Your task to perform on an android device: Show me popular videos on Youtube Image 0: 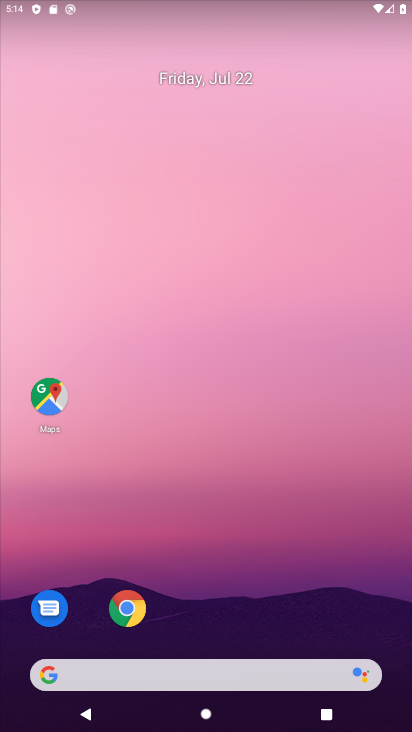
Step 0: drag from (204, 635) to (240, 193)
Your task to perform on an android device: Show me popular videos on Youtube Image 1: 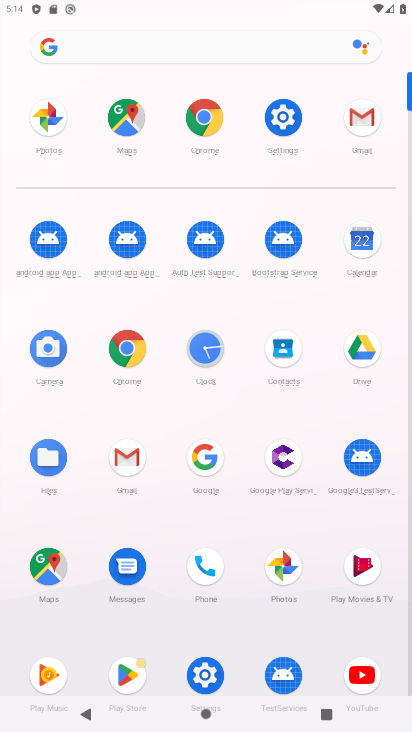
Step 1: click (363, 683)
Your task to perform on an android device: Show me popular videos on Youtube Image 2: 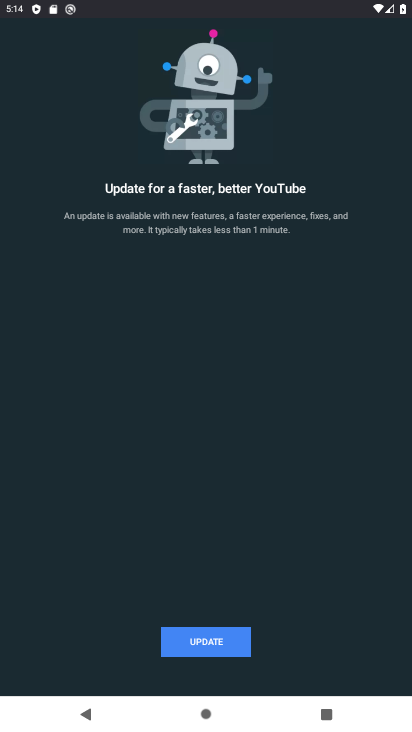
Step 2: click (211, 661)
Your task to perform on an android device: Show me popular videos on Youtube Image 3: 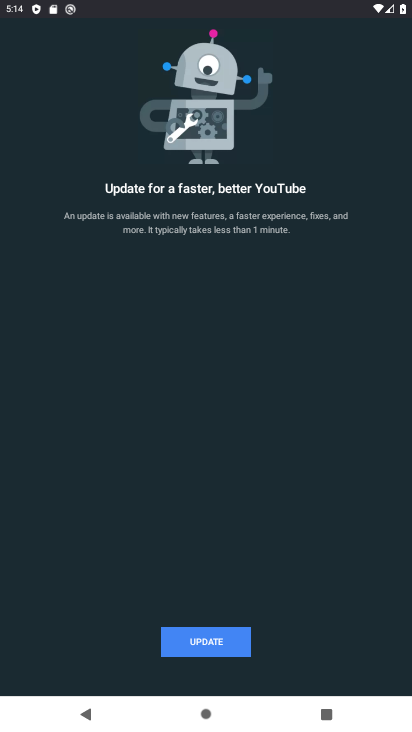
Step 3: click (208, 645)
Your task to perform on an android device: Show me popular videos on Youtube Image 4: 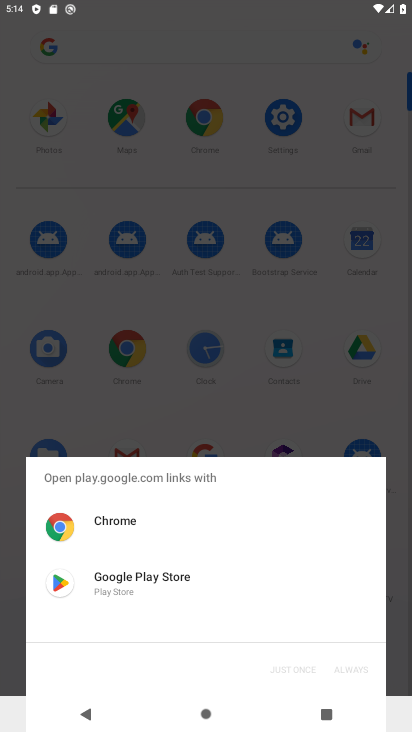
Step 4: click (123, 572)
Your task to perform on an android device: Show me popular videos on Youtube Image 5: 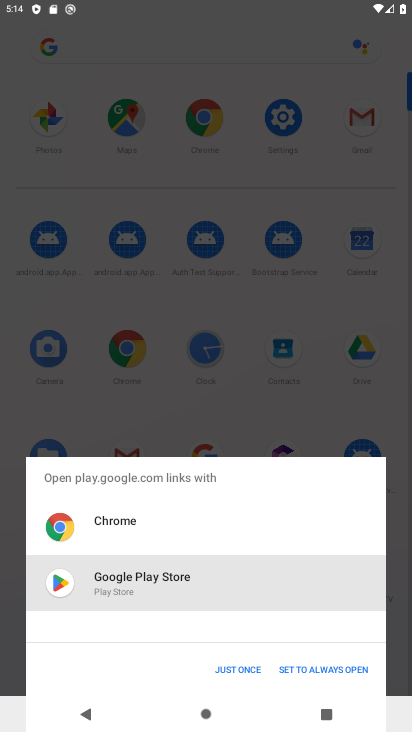
Step 5: click (235, 661)
Your task to perform on an android device: Show me popular videos on Youtube Image 6: 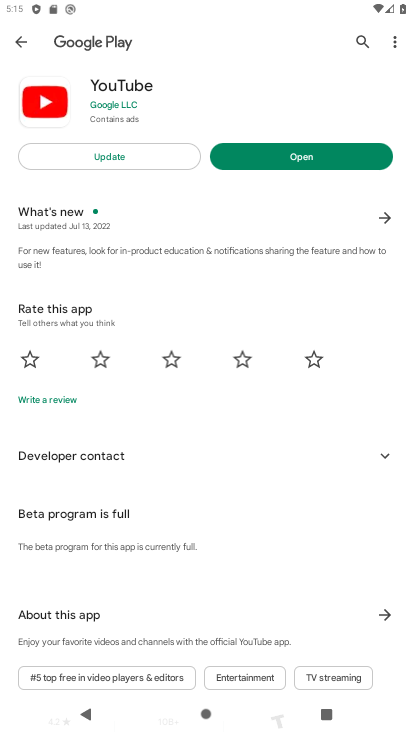
Step 6: click (140, 160)
Your task to perform on an android device: Show me popular videos on Youtube Image 7: 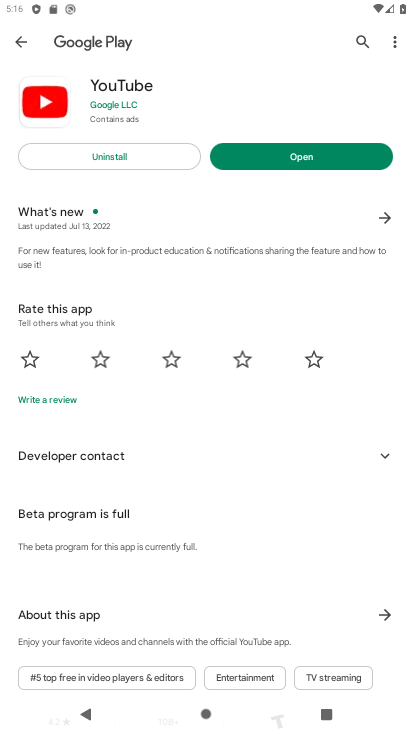
Step 7: click (239, 153)
Your task to perform on an android device: Show me popular videos on Youtube Image 8: 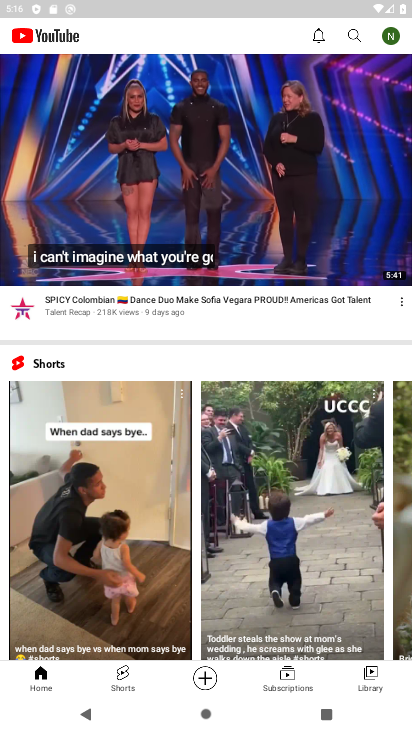
Step 8: drag from (163, 135) to (187, 658)
Your task to perform on an android device: Show me popular videos on Youtube Image 9: 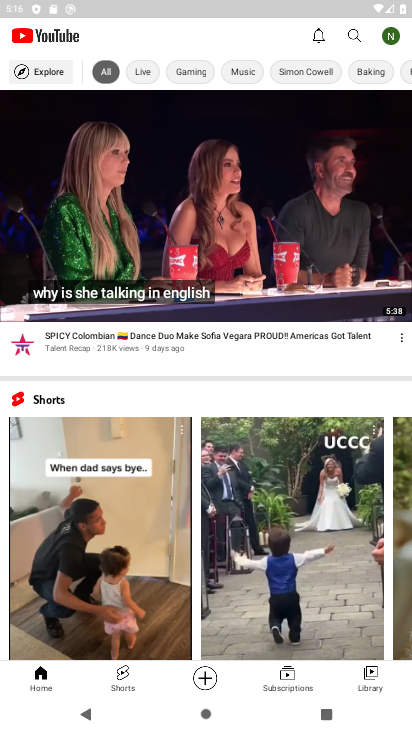
Step 9: click (22, 73)
Your task to perform on an android device: Show me popular videos on Youtube Image 10: 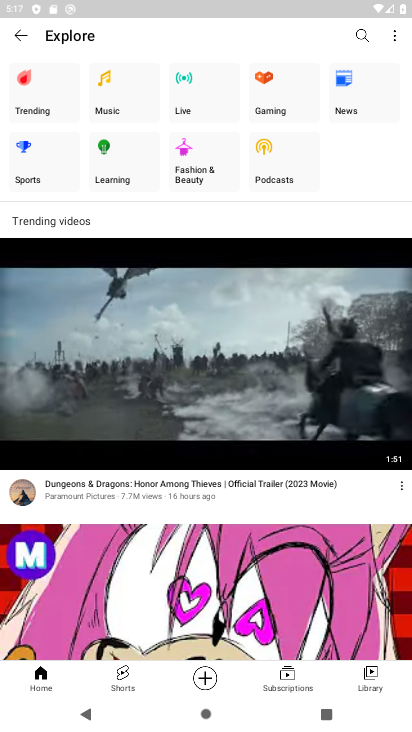
Step 10: click (39, 77)
Your task to perform on an android device: Show me popular videos on Youtube Image 11: 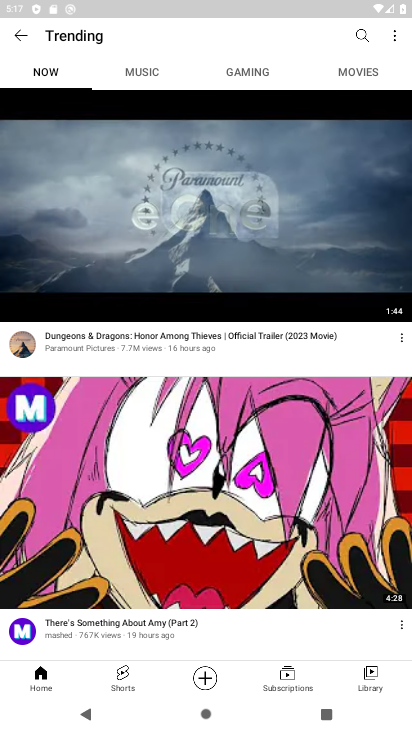
Step 11: task complete